Your task to perform on an android device: open sync settings in chrome Image 0: 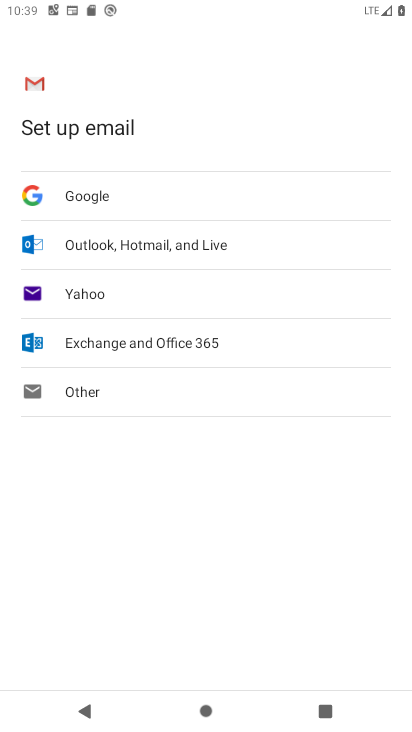
Step 0: press home button
Your task to perform on an android device: open sync settings in chrome Image 1: 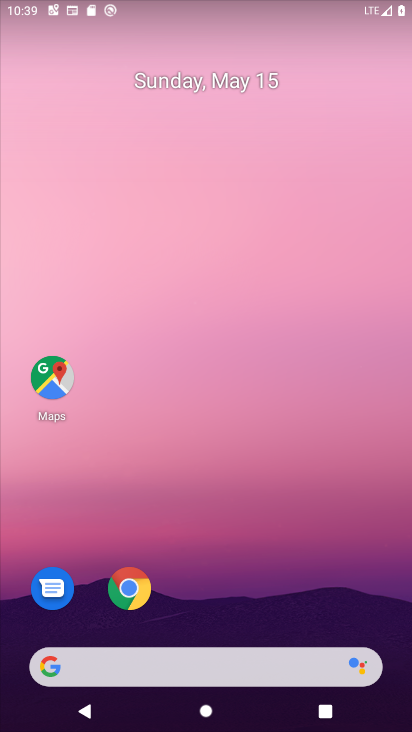
Step 1: click (130, 600)
Your task to perform on an android device: open sync settings in chrome Image 2: 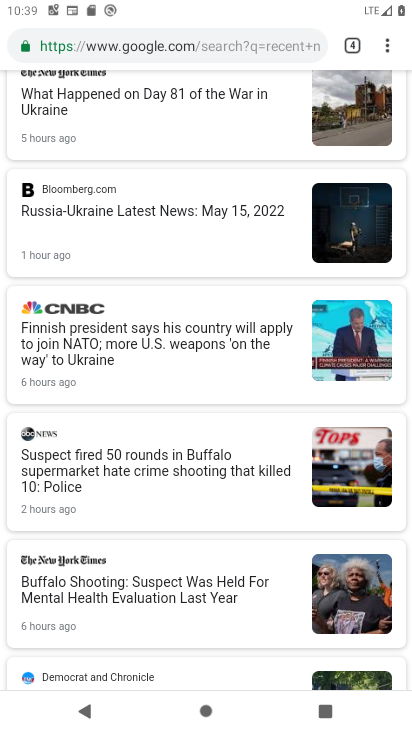
Step 2: click (386, 45)
Your task to perform on an android device: open sync settings in chrome Image 3: 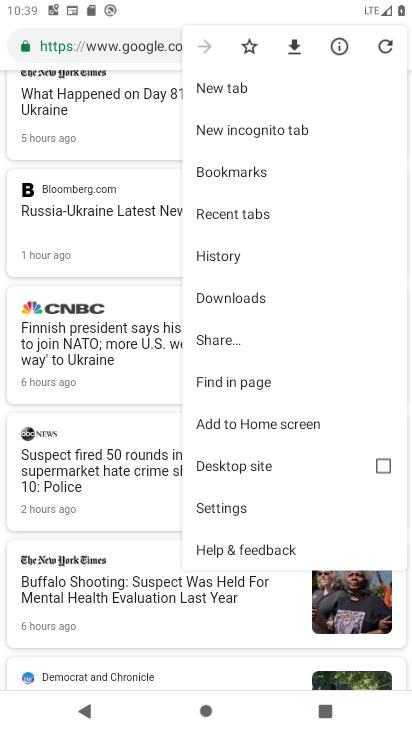
Step 3: click (239, 501)
Your task to perform on an android device: open sync settings in chrome Image 4: 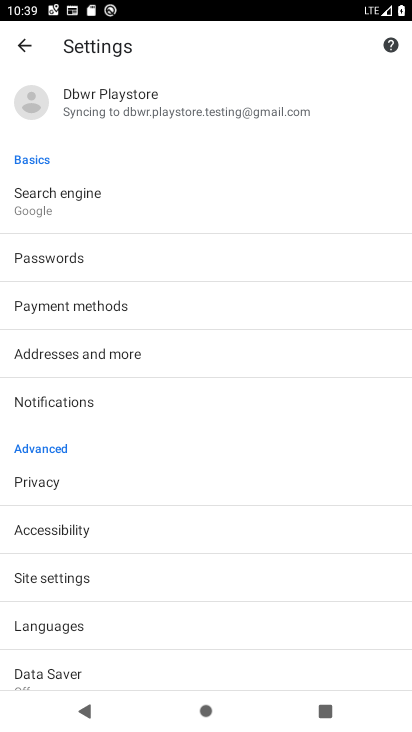
Step 4: click (125, 103)
Your task to perform on an android device: open sync settings in chrome Image 5: 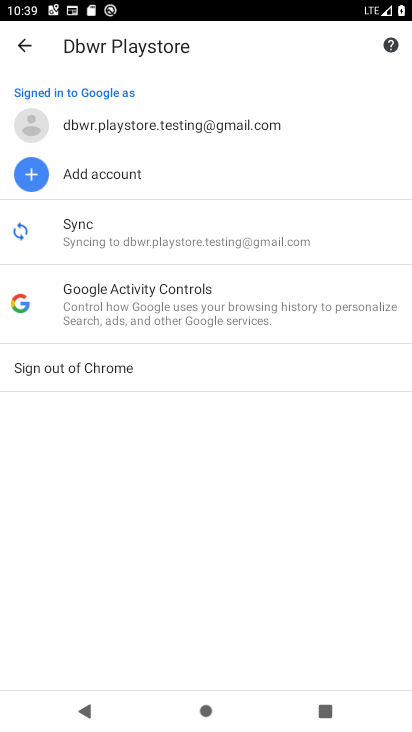
Step 5: click (125, 225)
Your task to perform on an android device: open sync settings in chrome Image 6: 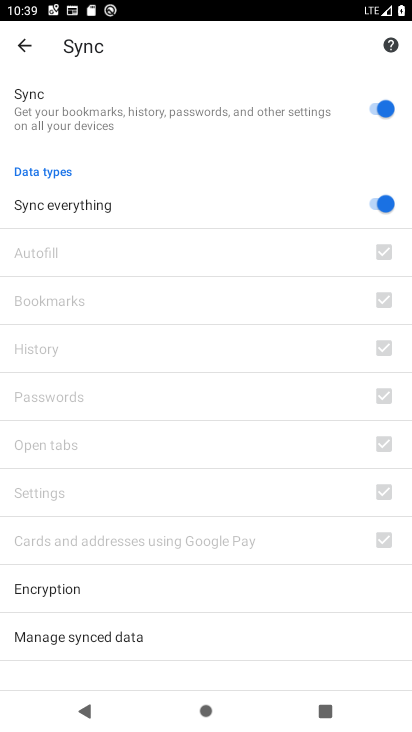
Step 6: task complete